Your task to perform on an android device: install app "Booking.com: Hotels and more" Image 0: 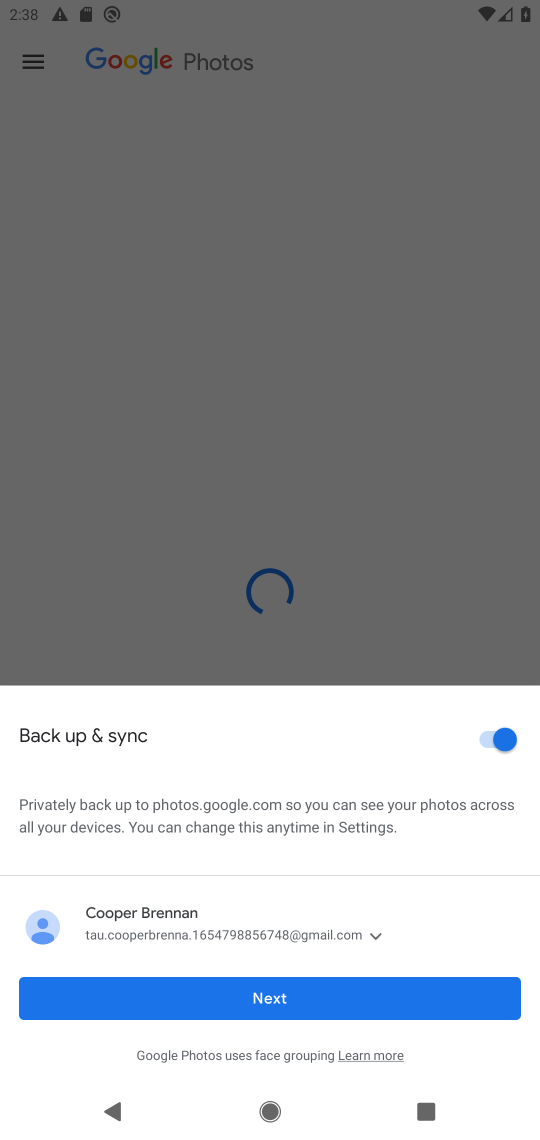
Step 0: press home button
Your task to perform on an android device: install app "Booking.com: Hotels and more" Image 1: 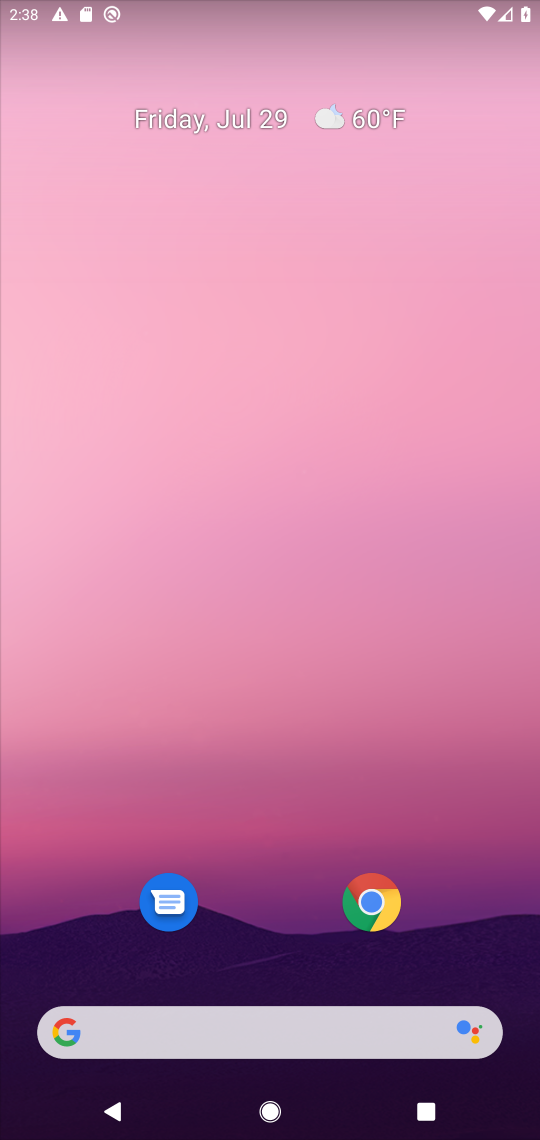
Step 1: drag from (329, 982) to (344, 118)
Your task to perform on an android device: install app "Booking.com: Hotels and more" Image 2: 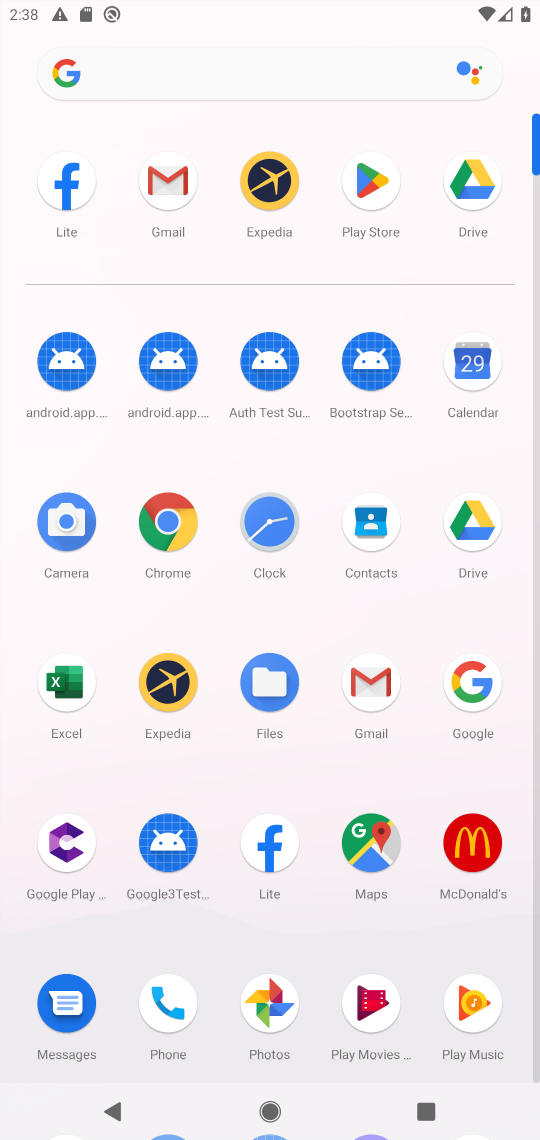
Step 2: click (371, 182)
Your task to perform on an android device: install app "Booking.com: Hotels and more" Image 3: 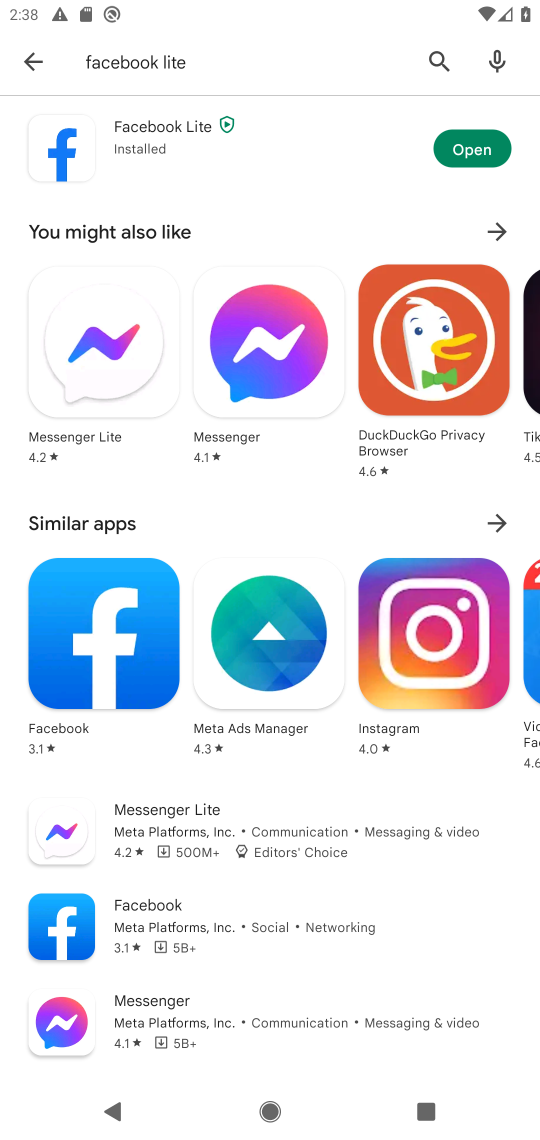
Step 3: click (32, 55)
Your task to perform on an android device: install app "Booking.com: Hotels and more" Image 4: 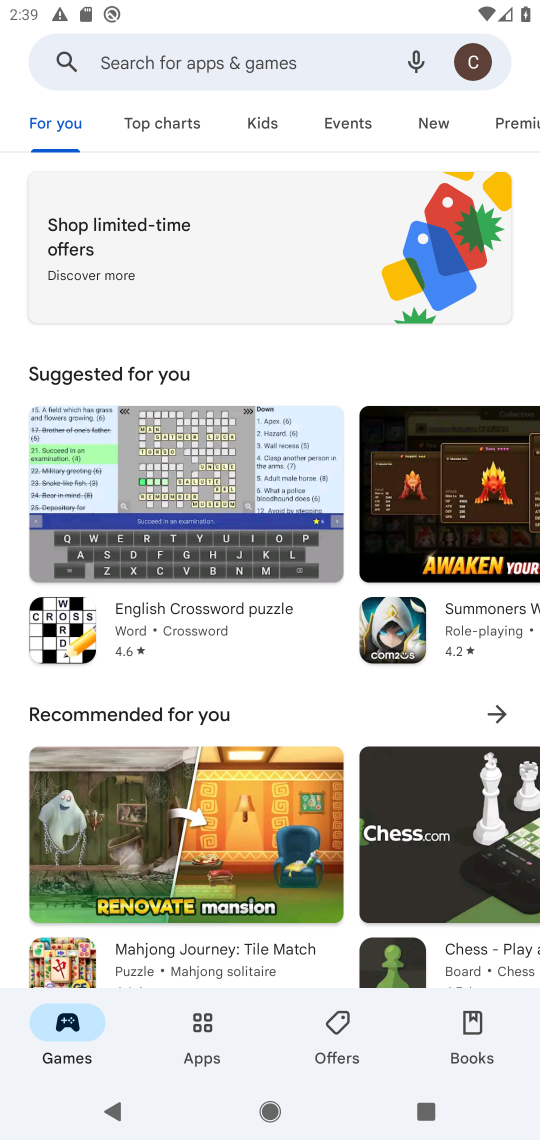
Step 4: click (160, 64)
Your task to perform on an android device: install app "Booking.com: Hotels and more" Image 5: 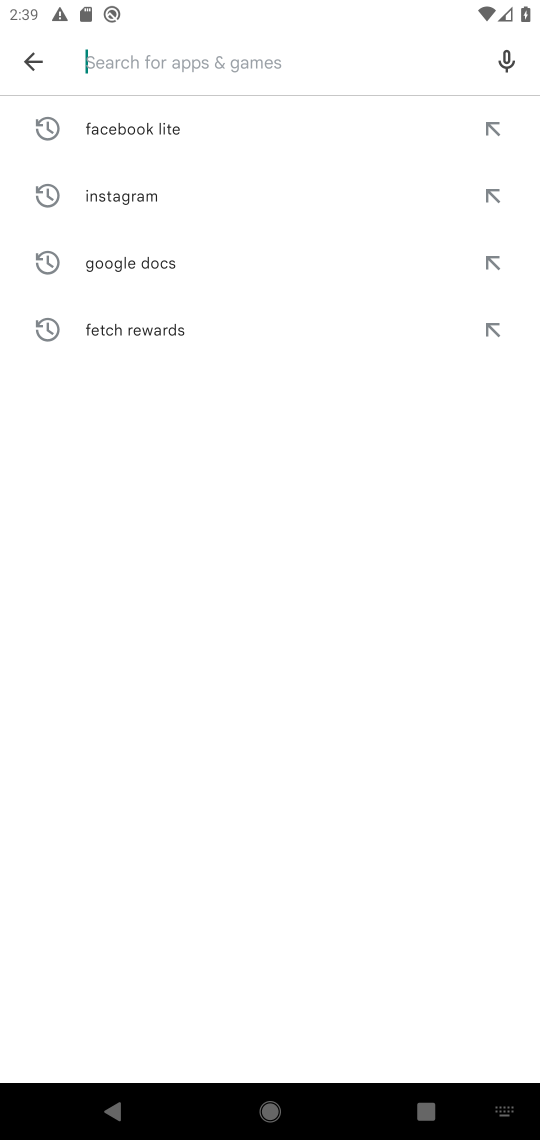
Step 5: type "Booking.com: Hotels and more"
Your task to perform on an android device: install app "Booking.com: Hotels and more" Image 6: 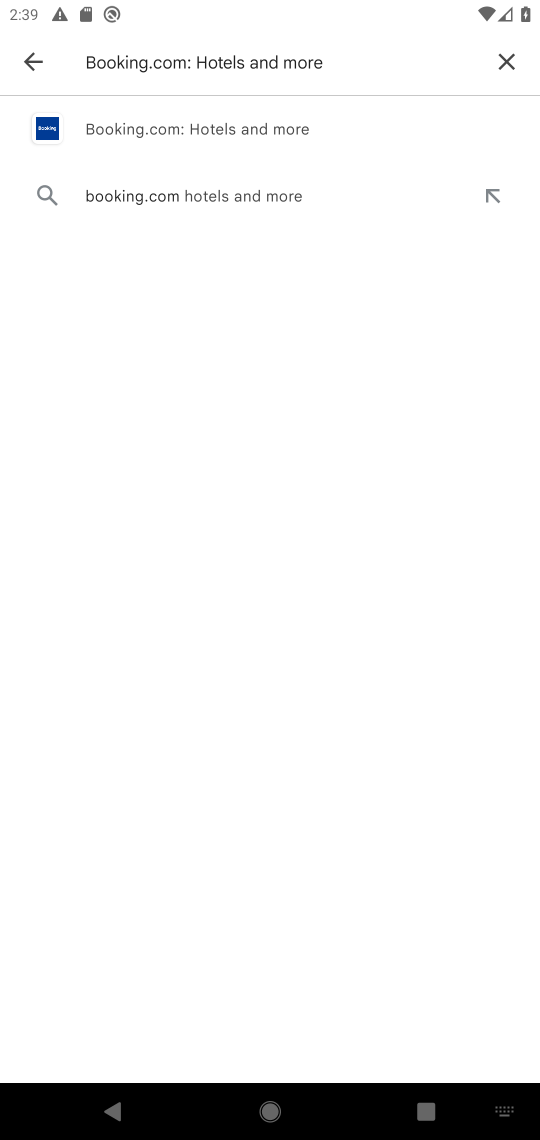
Step 6: click (172, 127)
Your task to perform on an android device: install app "Booking.com: Hotels and more" Image 7: 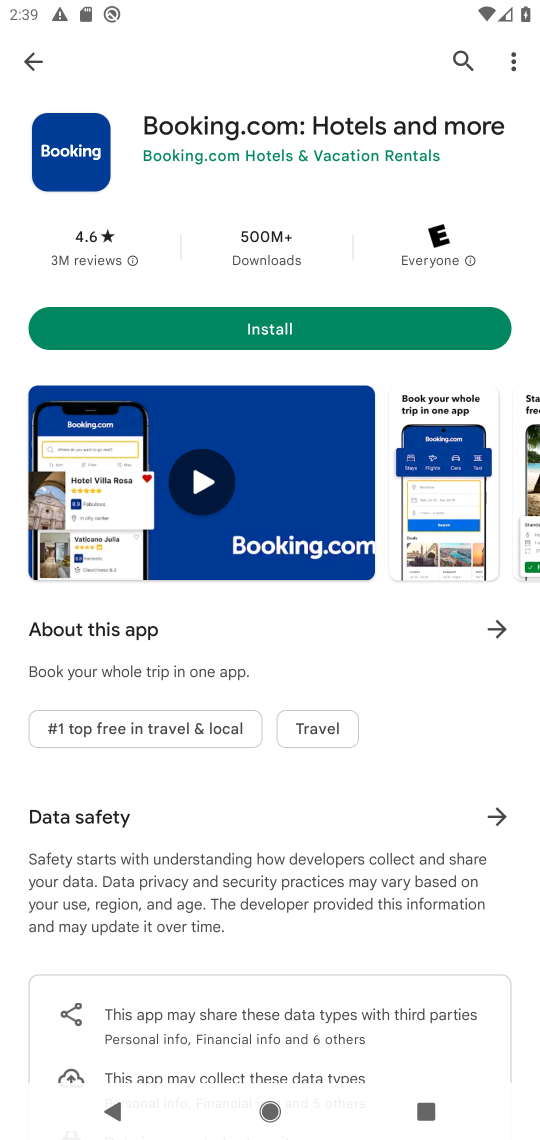
Step 7: click (261, 335)
Your task to perform on an android device: install app "Booking.com: Hotels and more" Image 8: 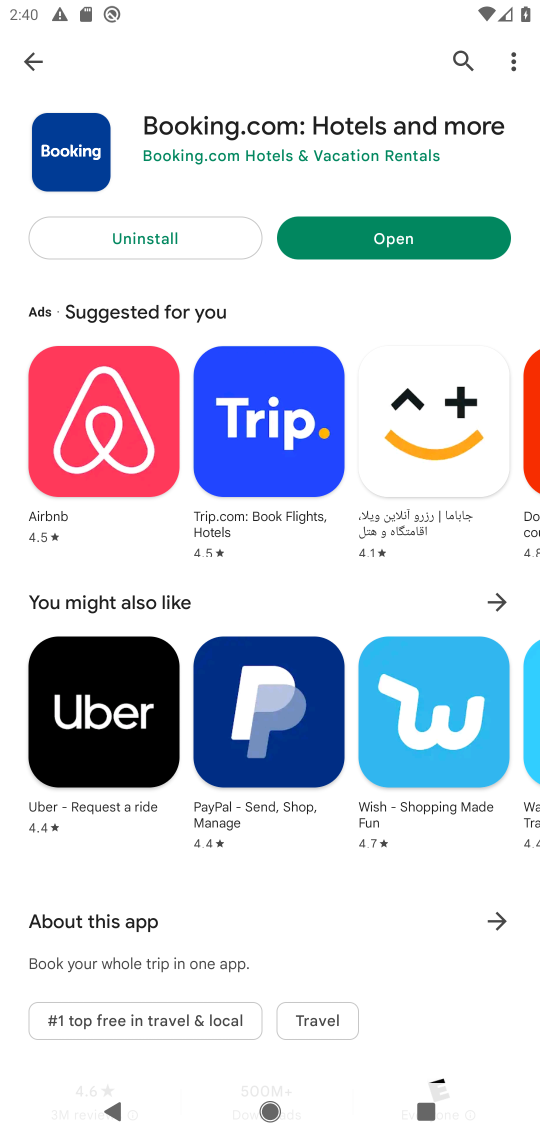
Step 8: click (362, 237)
Your task to perform on an android device: install app "Booking.com: Hotels and more" Image 9: 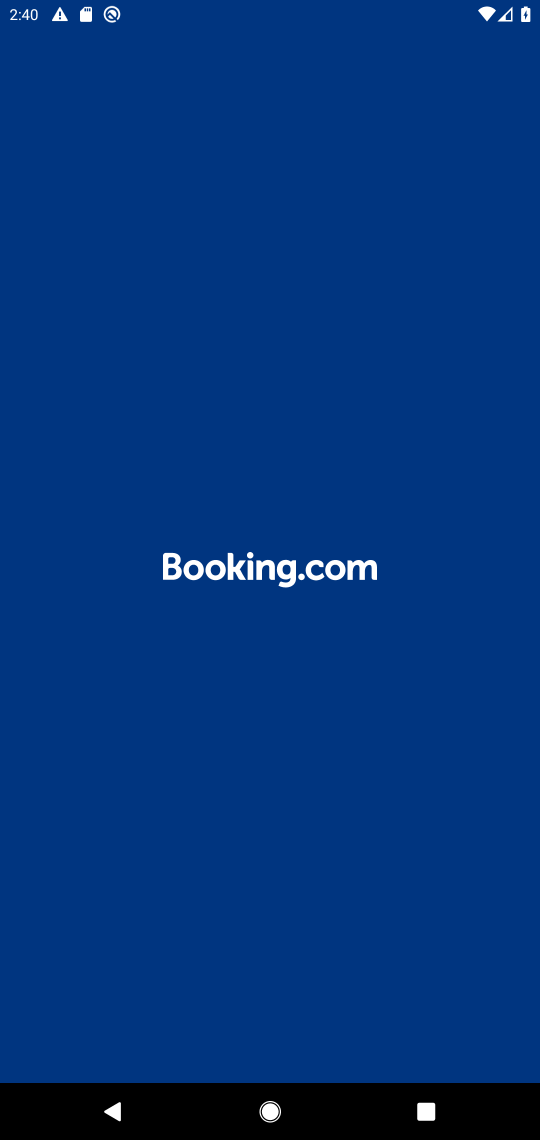
Step 9: task complete